Your task to perform on an android device: add a contact Image 0: 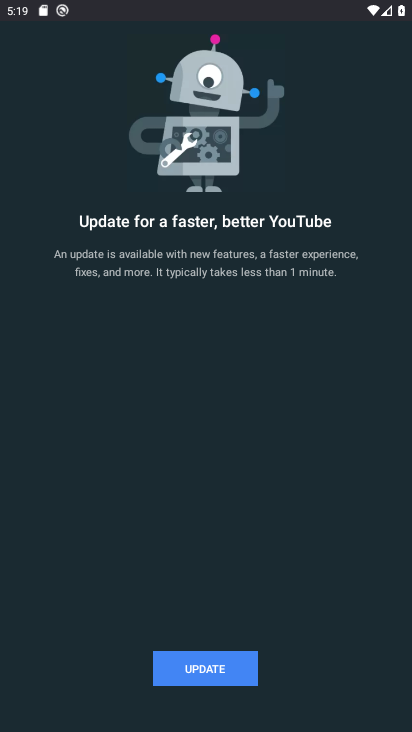
Step 0: press home button
Your task to perform on an android device: add a contact Image 1: 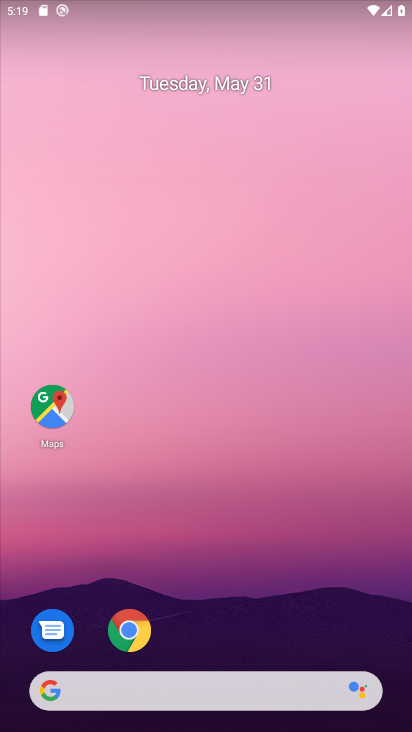
Step 1: drag from (175, 617) to (230, 185)
Your task to perform on an android device: add a contact Image 2: 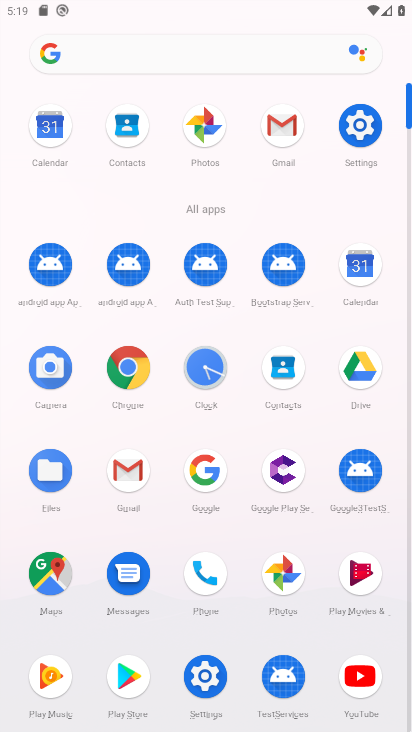
Step 2: click (283, 359)
Your task to perform on an android device: add a contact Image 3: 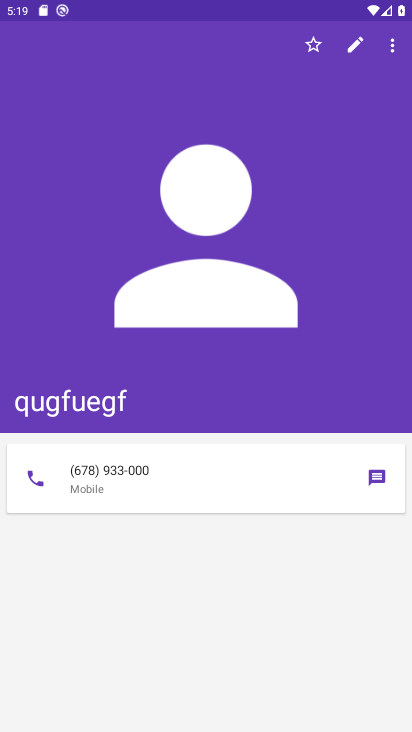
Step 3: press back button
Your task to perform on an android device: add a contact Image 4: 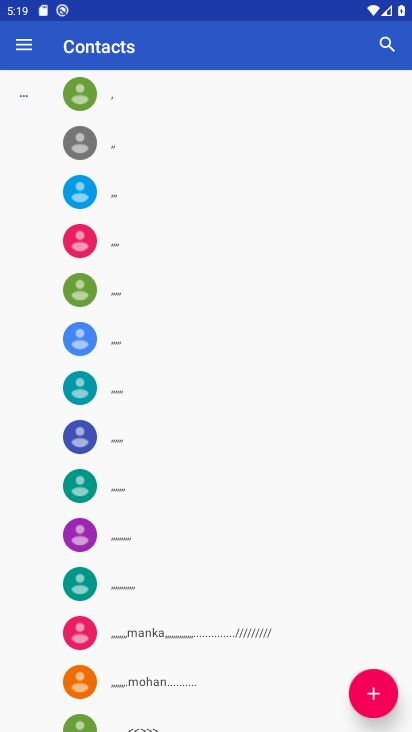
Step 4: click (355, 662)
Your task to perform on an android device: add a contact Image 5: 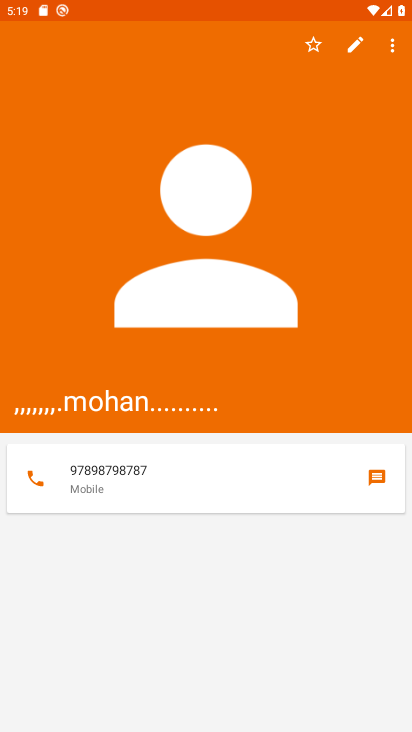
Step 5: press back button
Your task to perform on an android device: add a contact Image 6: 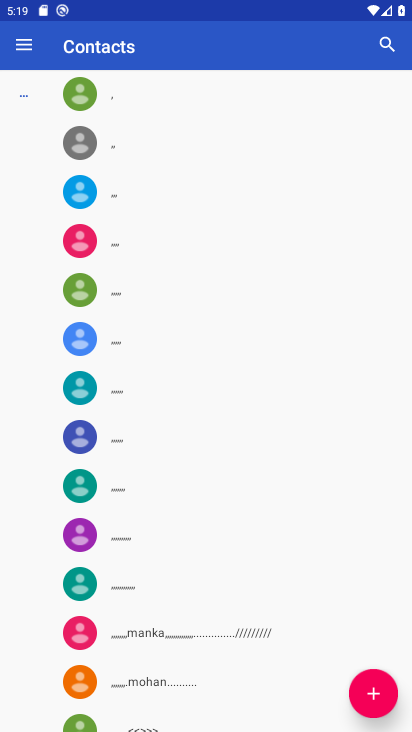
Step 6: click (379, 682)
Your task to perform on an android device: add a contact Image 7: 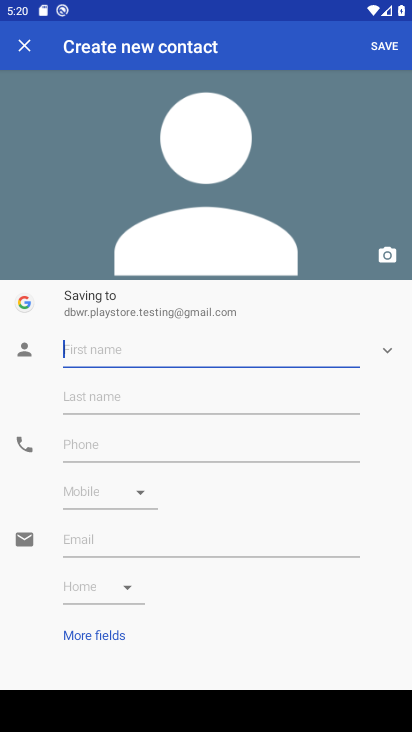
Step 7: type "vgghf"
Your task to perform on an android device: add a contact Image 8: 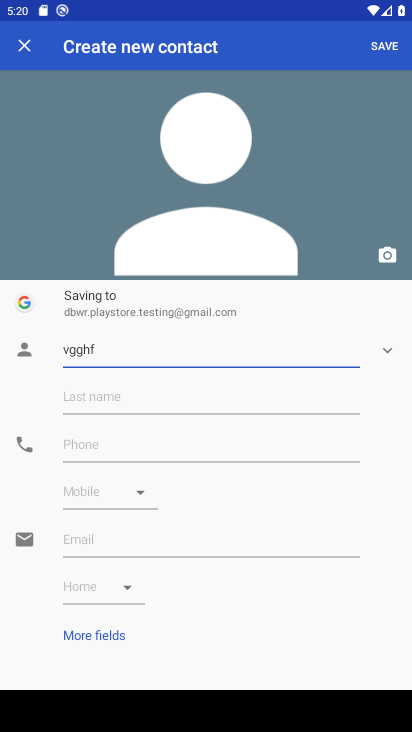
Step 8: click (150, 443)
Your task to perform on an android device: add a contact Image 9: 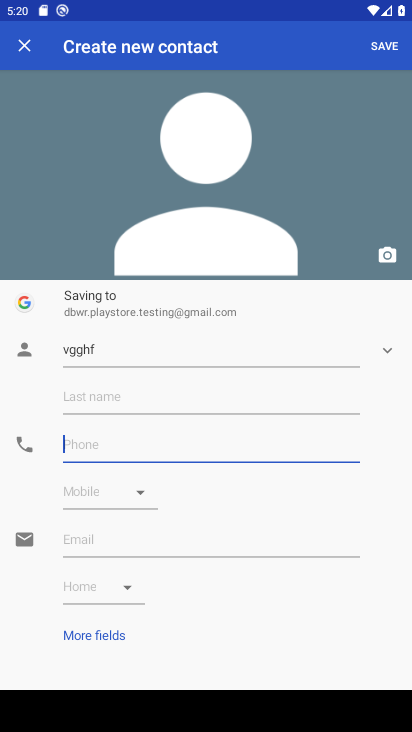
Step 9: type "77130"
Your task to perform on an android device: add a contact Image 10: 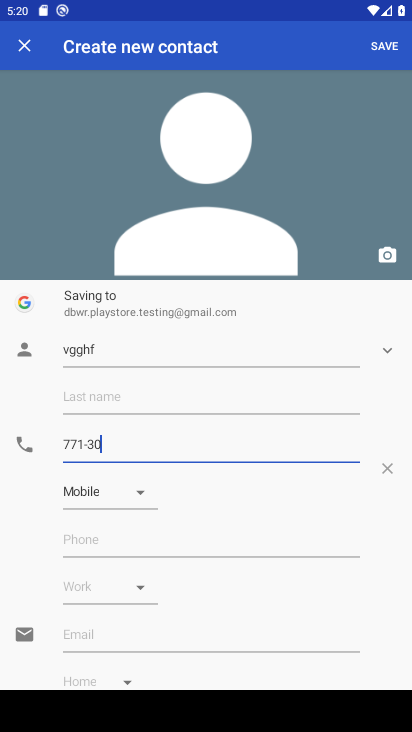
Step 10: click (367, 40)
Your task to perform on an android device: add a contact Image 11: 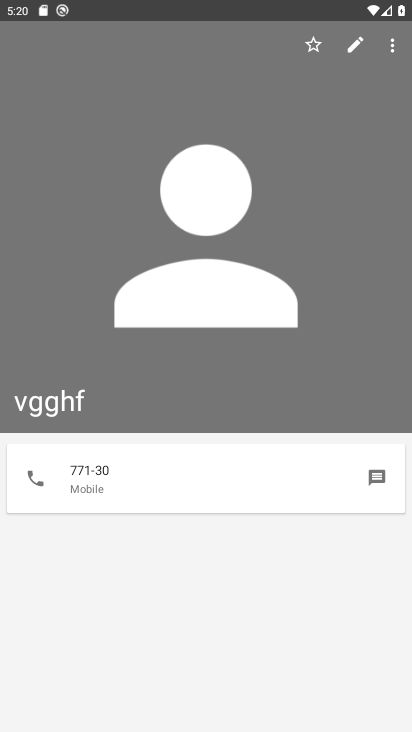
Step 11: task complete